Your task to perform on an android device: change the clock display to show seconds Image 0: 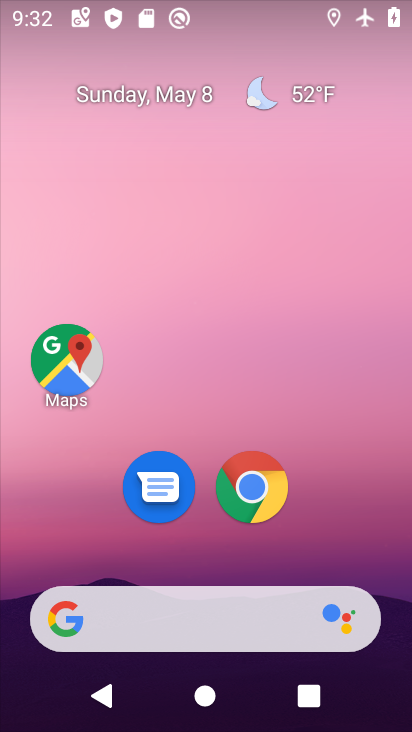
Step 0: drag from (400, 618) to (298, 53)
Your task to perform on an android device: change the clock display to show seconds Image 1: 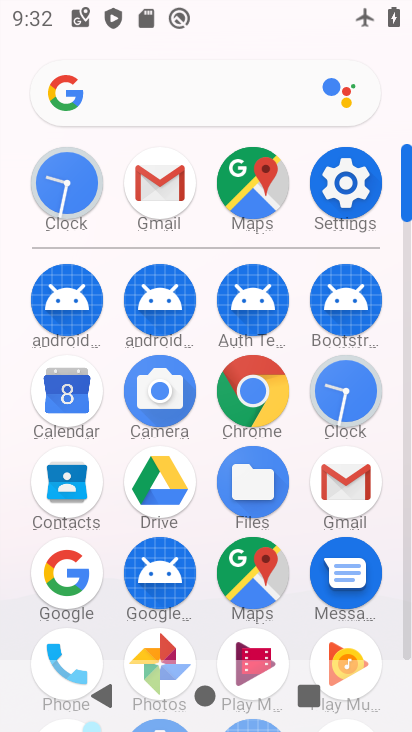
Step 1: click (348, 419)
Your task to perform on an android device: change the clock display to show seconds Image 2: 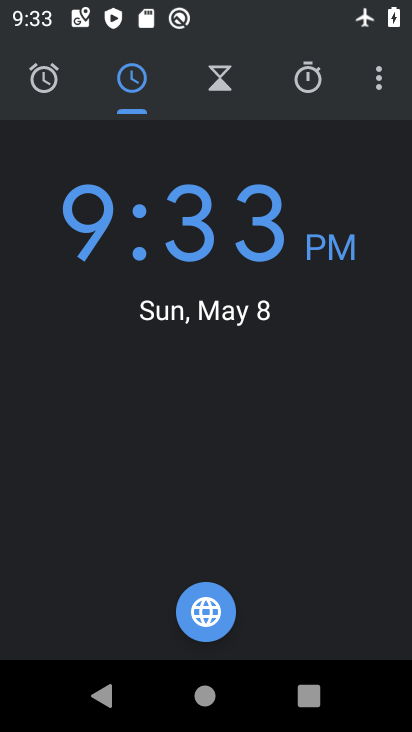
Step 2: click (372, 74)
Your task to perform on an android device: change the clock display to show seconds Image 3: 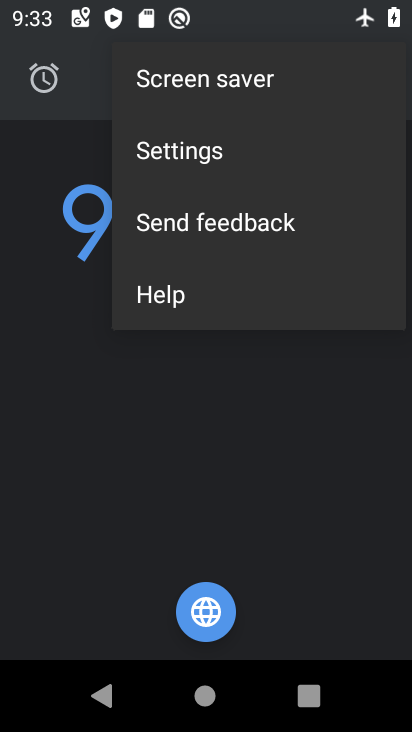
Step 3: click (212, 164)
Your task to perform on an android device: change the clock display to show seconds Image 4: 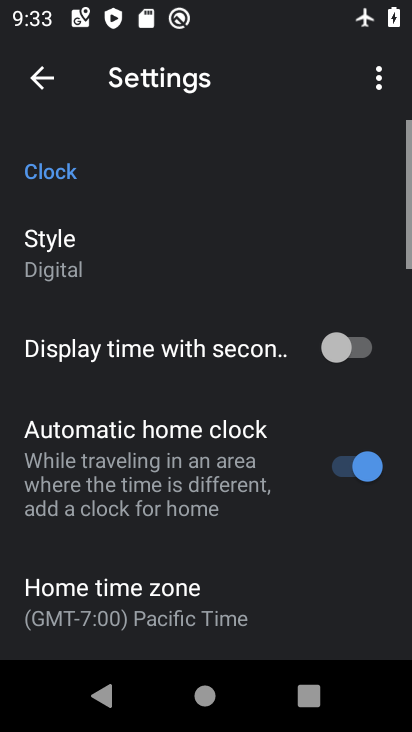
Step 4: click (223, 344)
Your task to perform on an android device: change the clock display to show seconds Image 5: 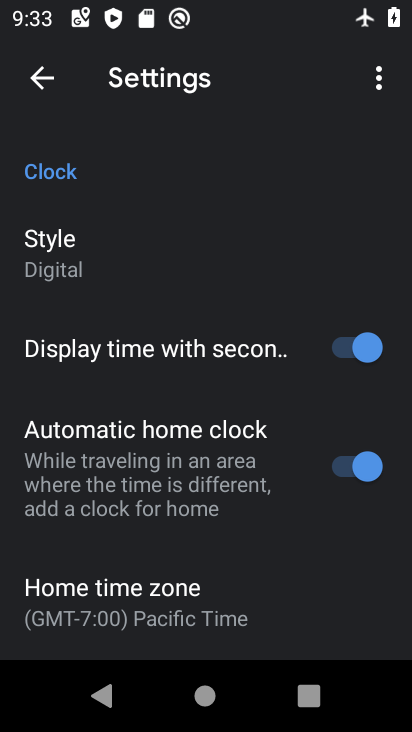
Step 5: task complete